Your task to perform on an android device: uninstall "Google Find My Device" Image 0: 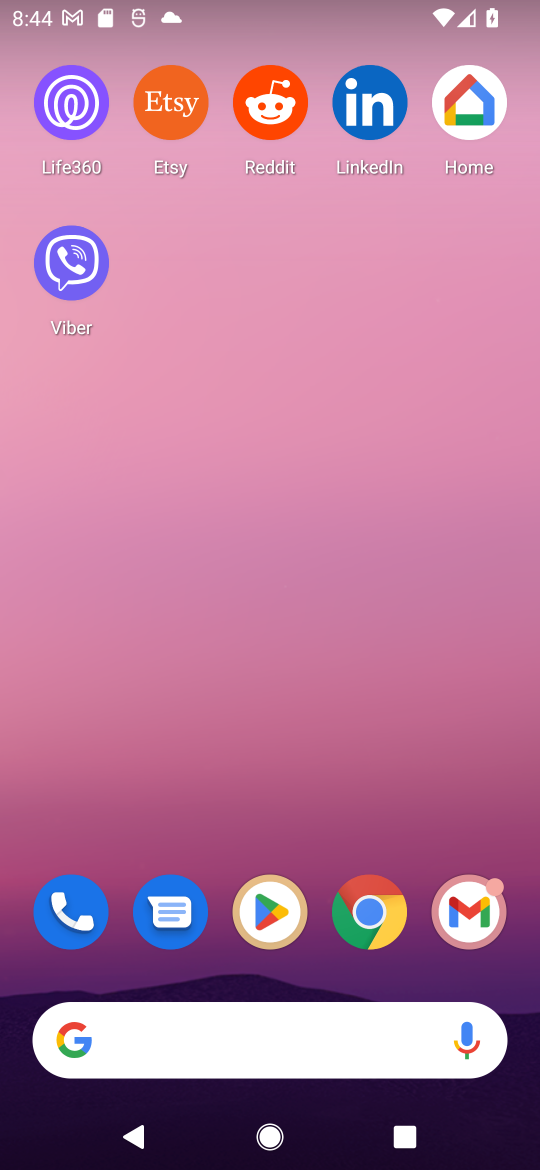
Step 0: drag from (524, 967) to (351, 34)
Your task to perform on an android device: uninstall "Google Find My Device" Image 1: 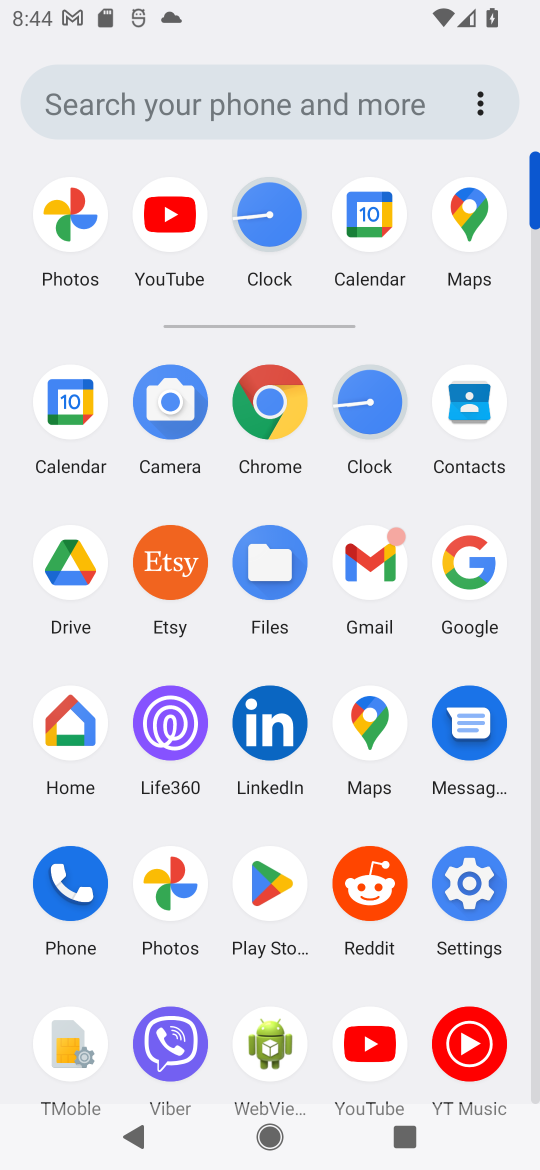
Step 1: click (263, 899)
Your task to perform on an android device: uninstall "Google Find My Device" Image 2: 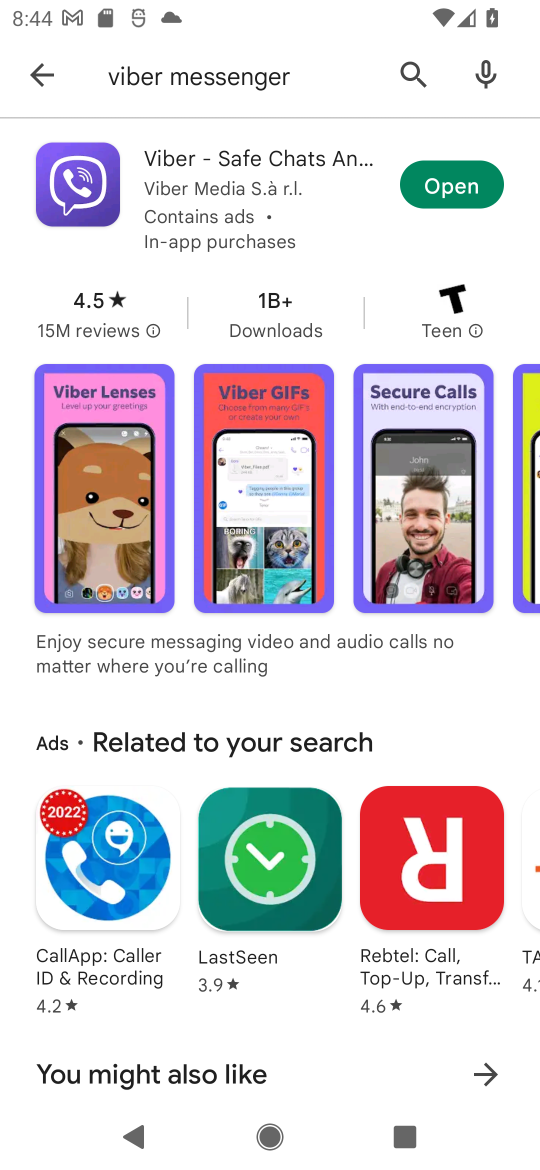
Step 2: press back button
Your task to perform on an android device: uninstall "Google Find My Device" Image 3: 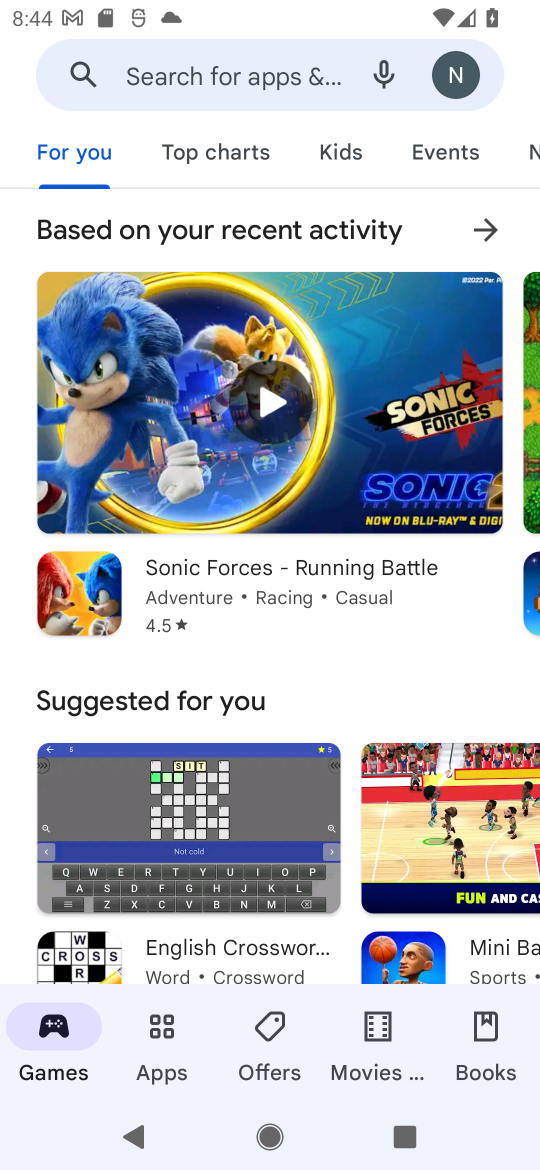
Step 3: click (180, 76)
Your task to perform on an android device: uninstall "Google Find My Device" Image 4: 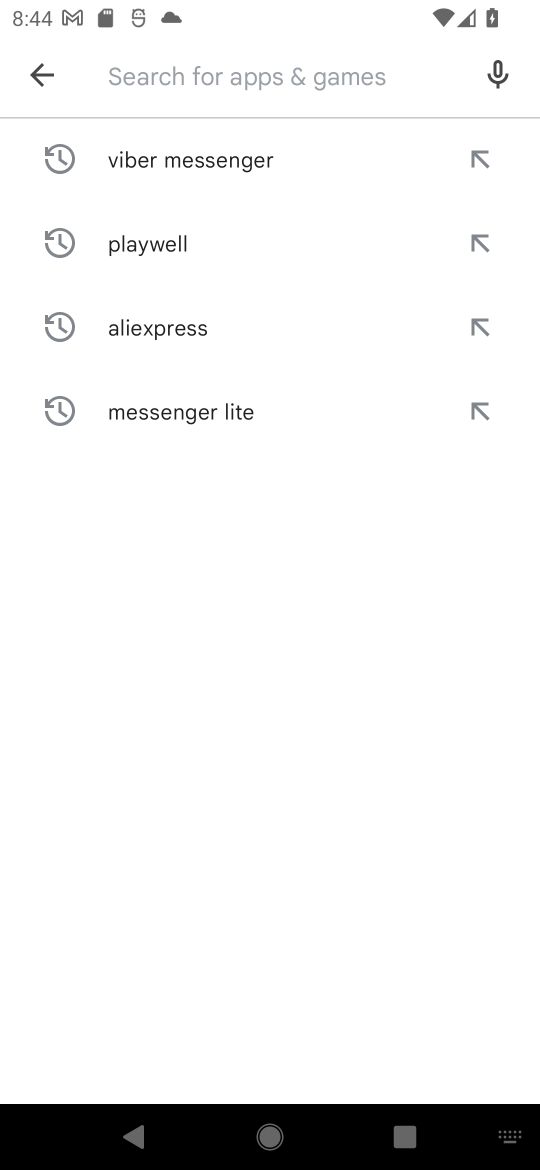
Step 4: type "Google Find My Device"
Your task to perform on an android device: uninstall "Google Find My Device" Image 5: 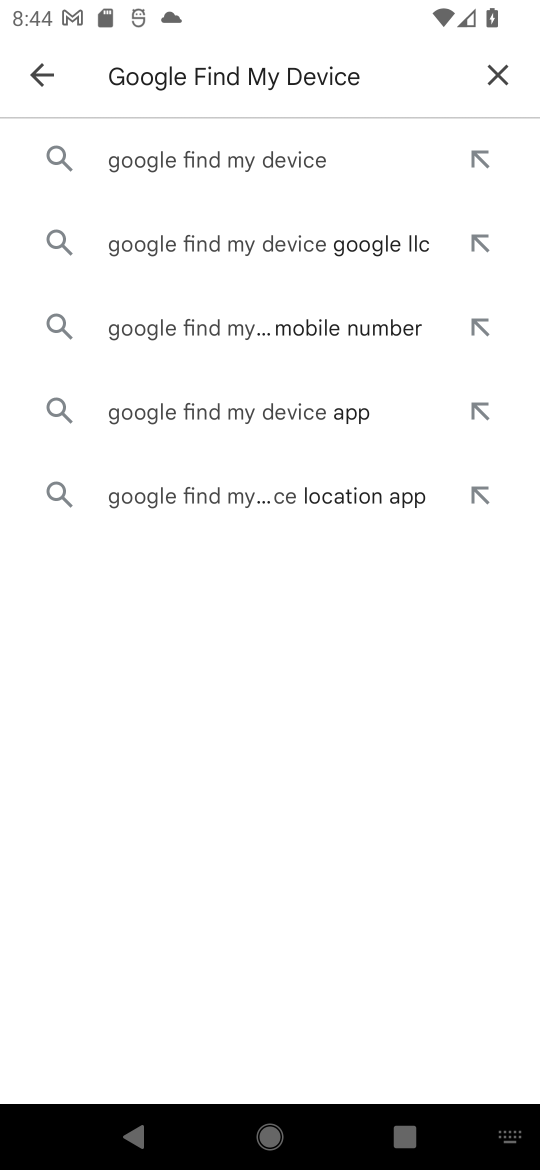
Step 5: click (320, 149)
Your task to perform on an android device: uninstall "Google Find My Device" Image 6: 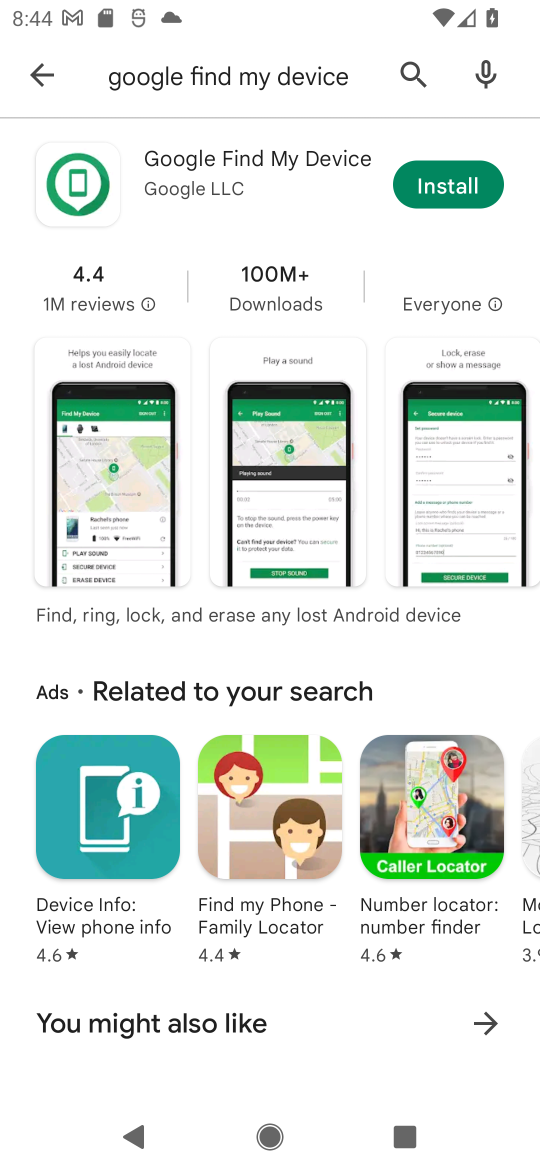
Step 6: task complete